Your task to perform on an android device: turn off translation in the chrome app Image 0: 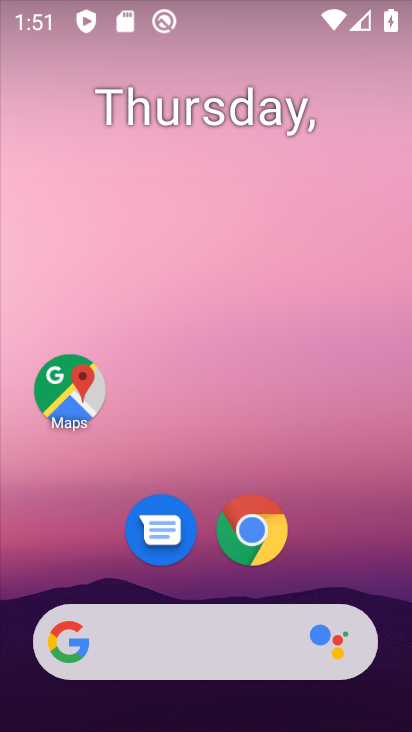
Step 0: click (225, 542)
Your task to perform on an android device: turn off translation in the chrome app Image 1: 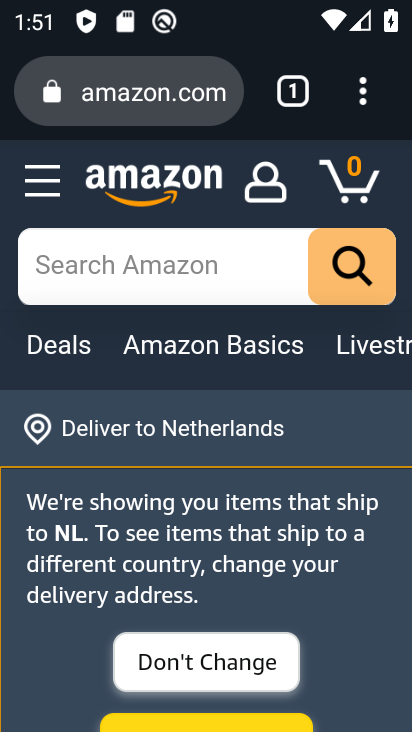
Step 1: click (350, 89)
Your task to perform on an android device: turn off translation in the chrome app Image 2: 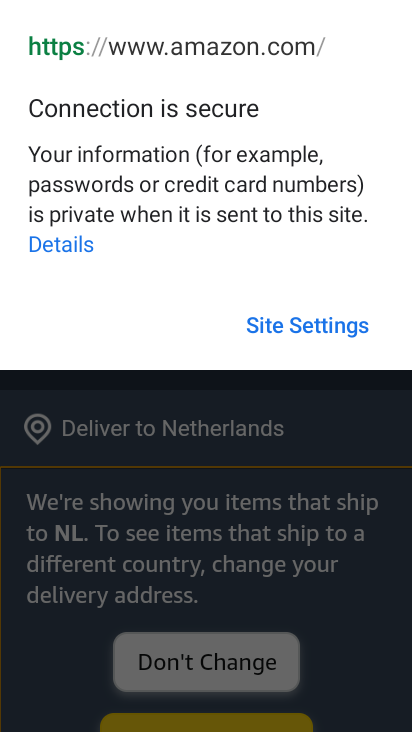
Step 2: click (321, 612)
Your task to perform on an android device: turn off translation in the chrome app Image 3: 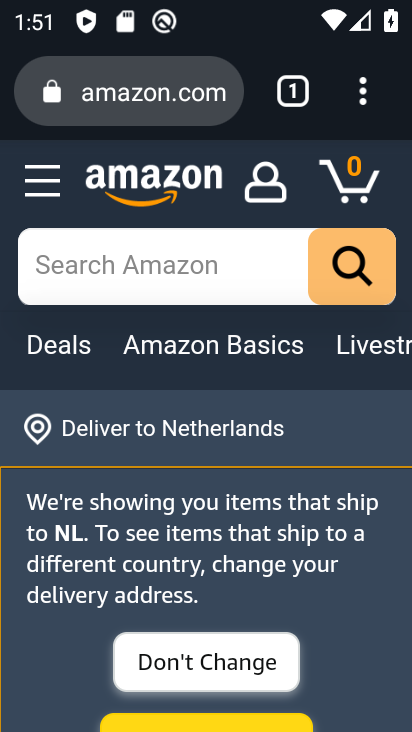
Step 3: click (367, 92)
Your task to perform on an android device: turn off translation in the chrome app Image 4: 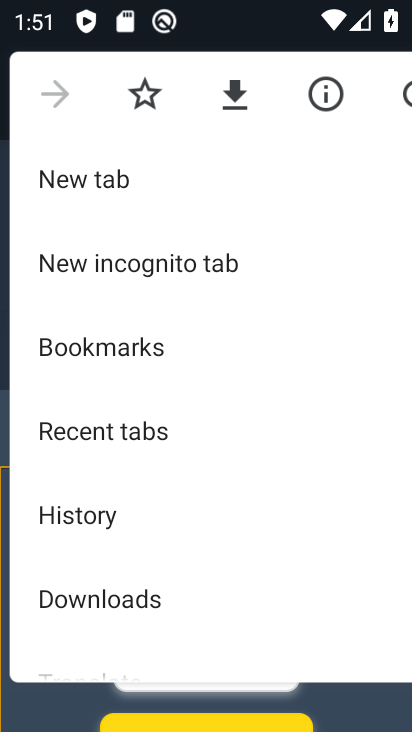
Step 4: drag from (230, 589) to (312, 11)
Your task to perform on an android device: turn off translation in the chrome app Image 5: 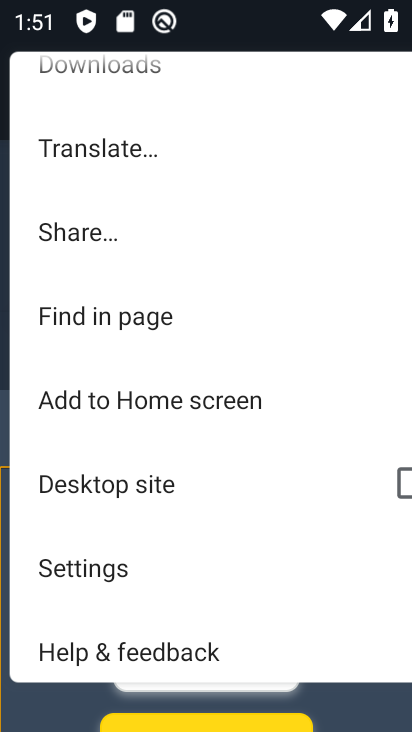
Step 5: drag from (301, 133) to (312, 457)
Your task to perform on an android device: turn off translation in the chrome app Image 6: 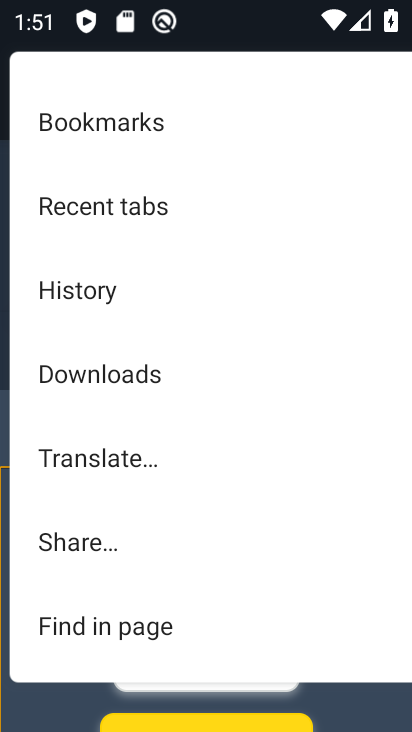
Step 6: drag from (216, 605) to (314, 30)
Your task to perform on an android device: turn off translation in the chrome app Image 7: 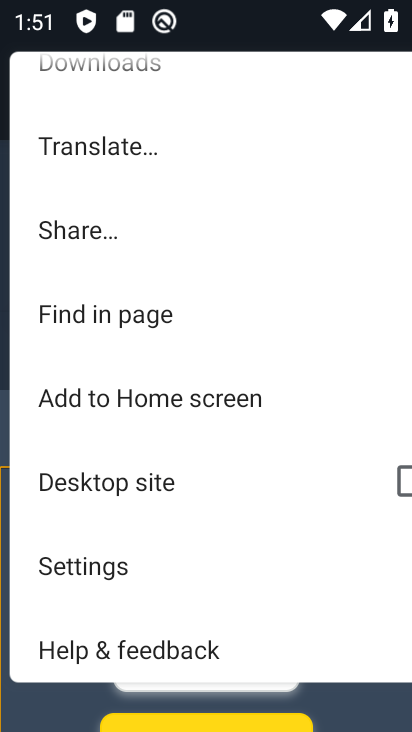
Step 7: click (152, 555)
Your task to perform on an android device: turn off translation in the chrome app Image 8: 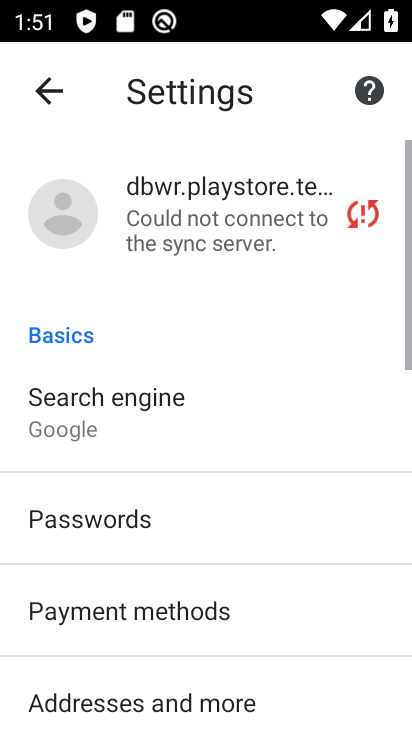
Step 8: drag from (290, 621) to (174, 22)
Your task to perform on an android device: turn off translation in the chrome app Image 9: 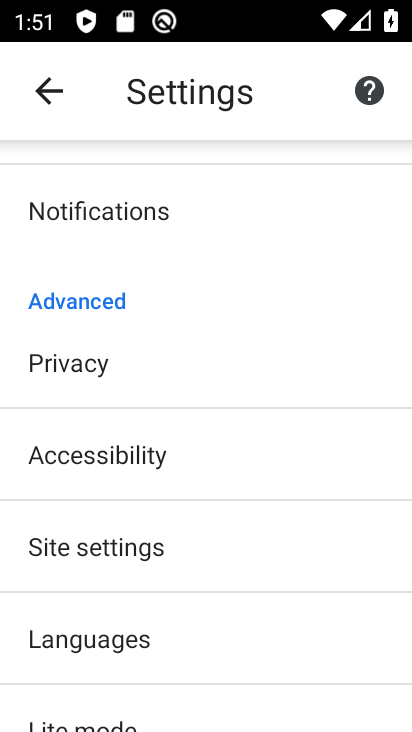
Step 9: click (132, 647)
Your task to perform on an android device: turn off translation in the chrome app Image 10: 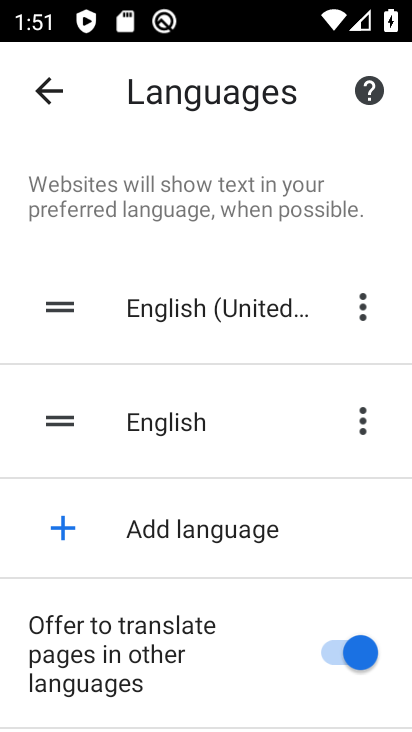
Step 10: click (356, 647)
Your task to perform on an android device: turn off translation in the chrome app Image 11: 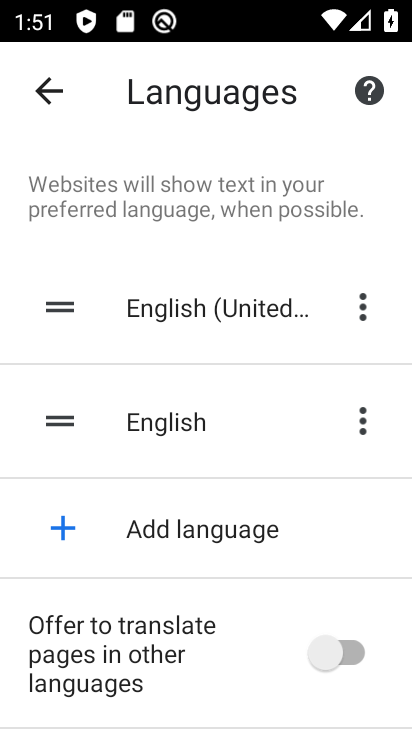
Step 11: task complete